Your task to perform on an android device: What's on my calendar tomorrow? Image 0: 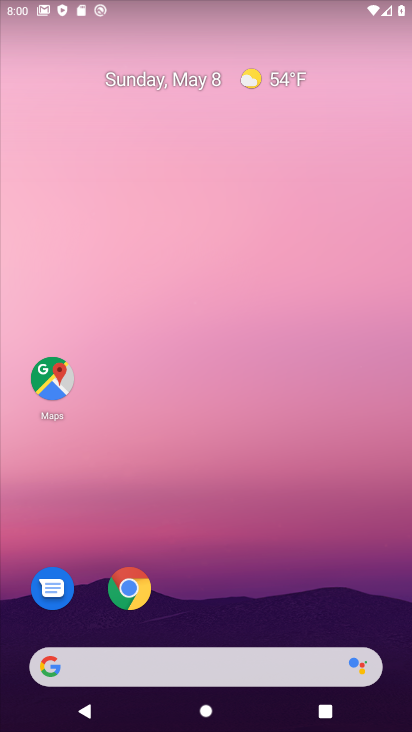
Step 0: drag from (268, 555) to (245, 137)
Your task to perform on an android device: What's on my calendar tomorrow? Image 1: 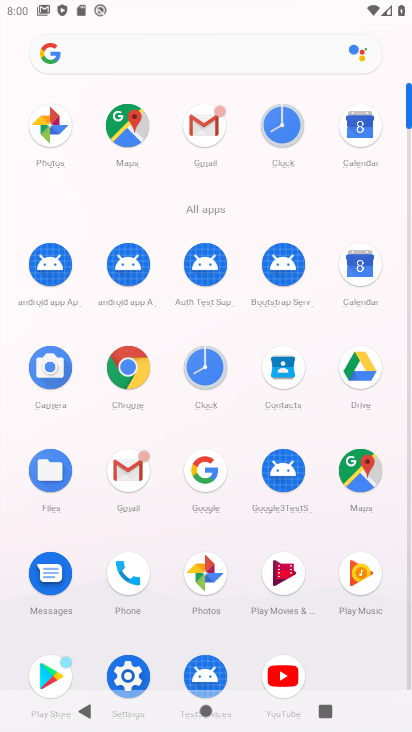
Step 1: click (358, 125)
Your task to perform on an android device: What's on my calendar tomorrow? Image 2: 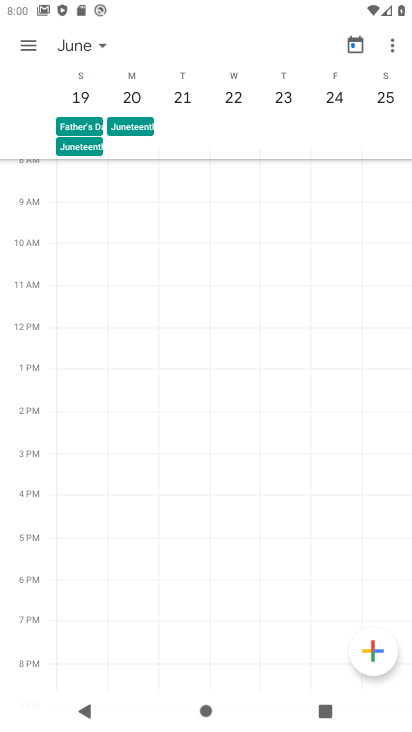
Step 2: click (26, 36)
Your task to perform on an android device: What's on my calendar tomorrow? Image 3: 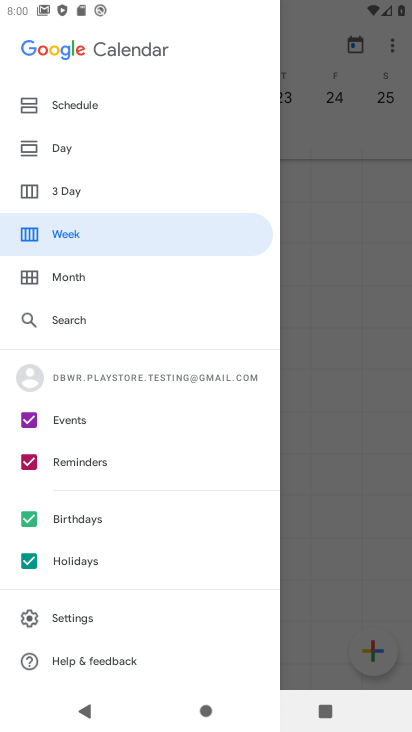
Step 3: click (86, 92)
Your task to perform on an android device: What's on my calendar tomorrow? Image 4: 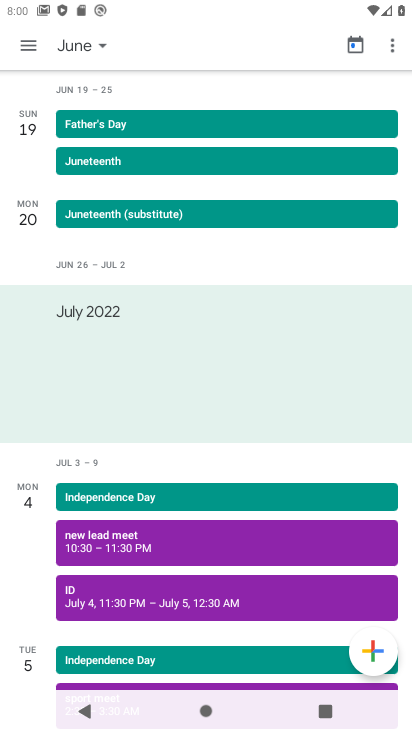
Step 4: click (89, 44)
Your task to perform on an android device: What's on my calendar tomorrow? Image 5: 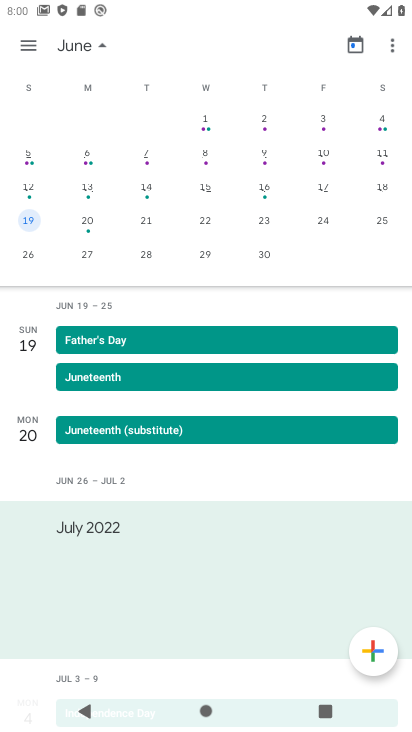
Step 5: drag from (46, 172) to (372, 164)
Your task to perform on an android device: What's on my calendar tomorrow? Image 6: 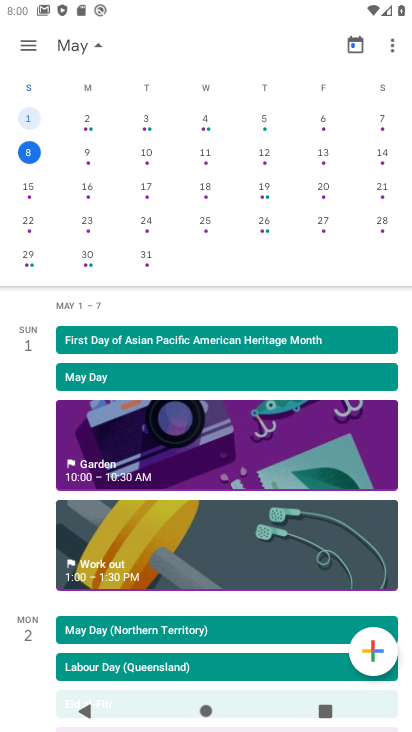
Step 6: click (84, 149)
Your task to perform on an android device: What's on my calendar tomorrow? Image 7: 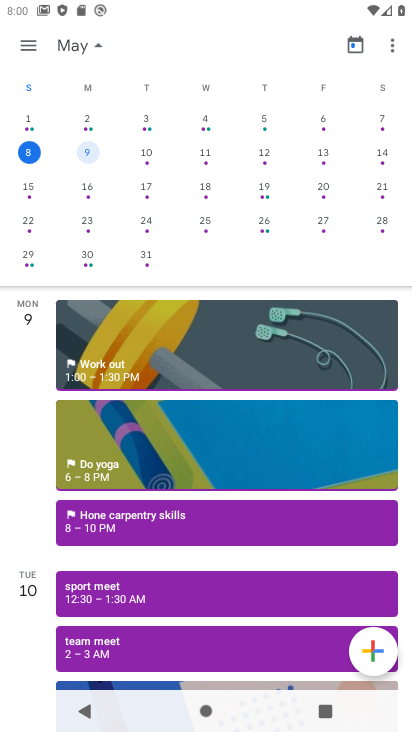
Step 7: task complete